Your task to perform on an android device: turn off notifications settings in the gmail app Image 0: 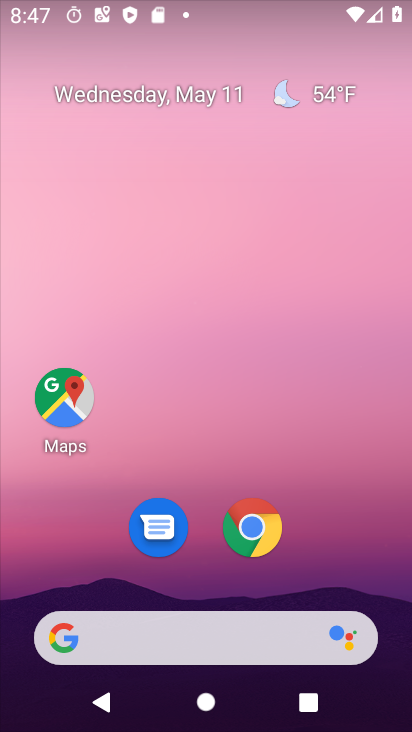
Step 0: drag from (207, 574) to (215, 2)
Your task to perform on an android device: turn off notifications settings in the gmail app Image 1: 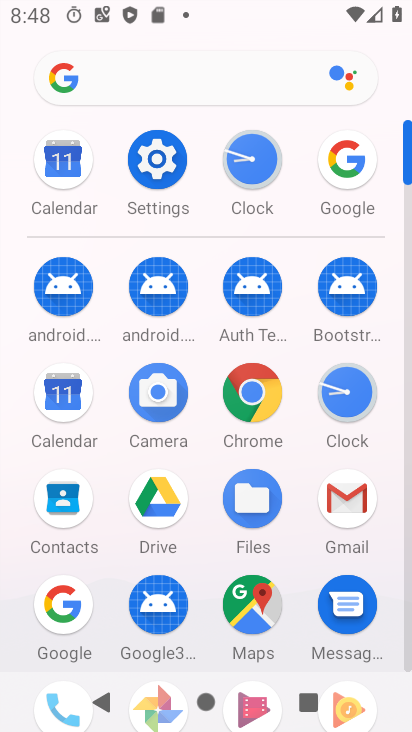
Step 1: click (349, 499)
Your task to perform on an android device: turn off notifications settings in the gmail app Image 2: 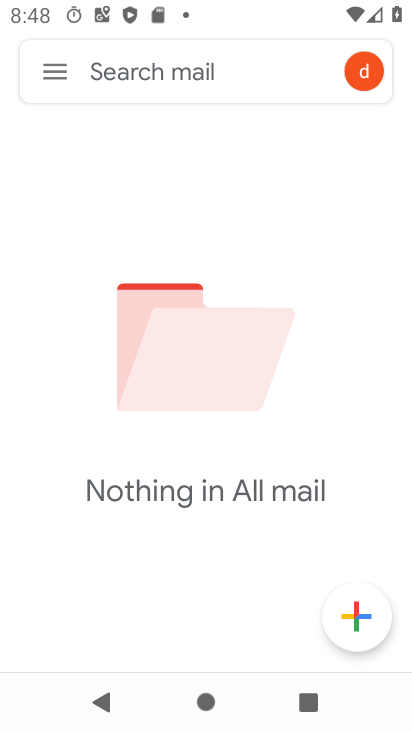
Step 2: click (53, 69)
Your task to perform on an android device: turn off notifications settings in the gmail app Image 3: 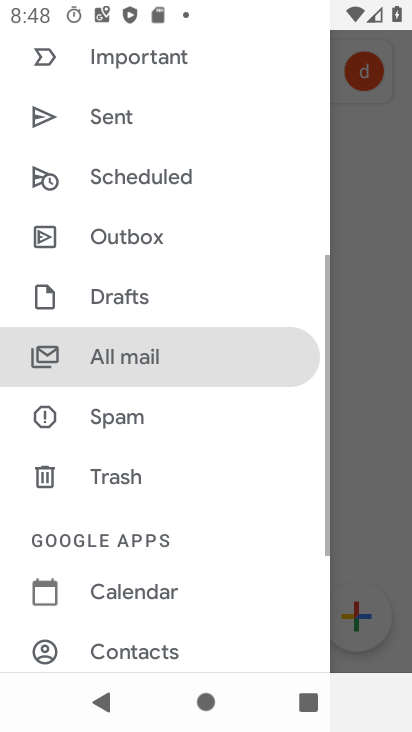
Step 3: drag from (227, 550) to (189, 118)
Your task to perform on an android device: turn off notifications settings in the gmail app Image 4: 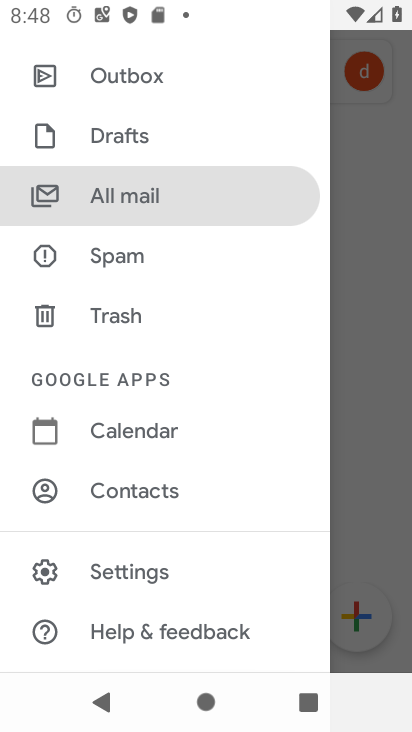
Step 4: click (125, 570)
Your task to perform on an android device: turn off notifications settings in the gmail app Image 5: 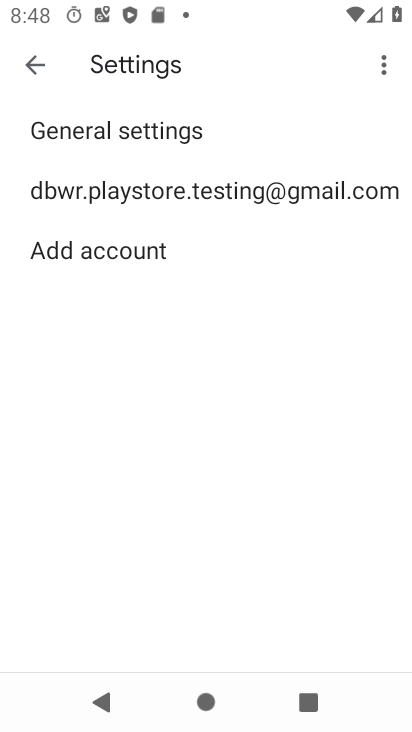
Step 5: click (176, 189)
Your task to perform on an android device: turn off notifications settings in the gmail app Image 6: 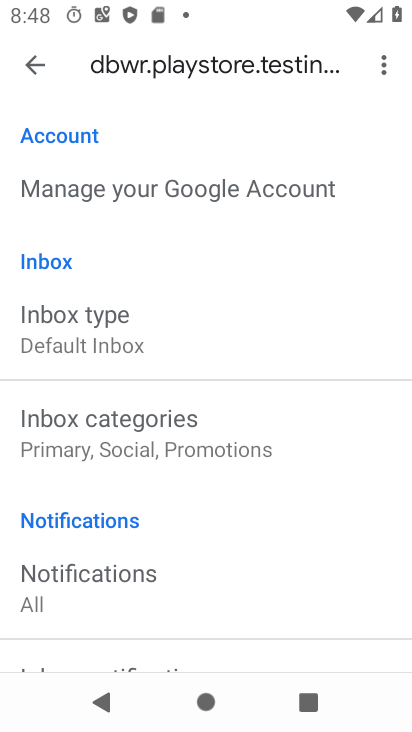
Step 6: click (97, 599)
Your task to perform on an android device: turn off notifications settings in the gmail app Image 7: 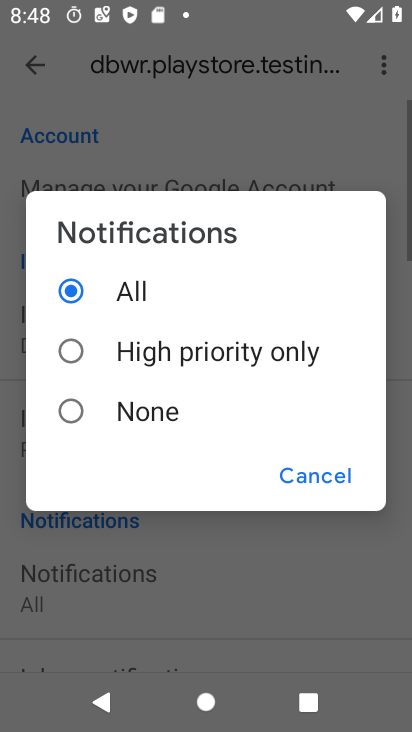
Step 7: click (65, 413)
Your task to perform on an android device: turn off notifications settings in the gmail app Image 8: 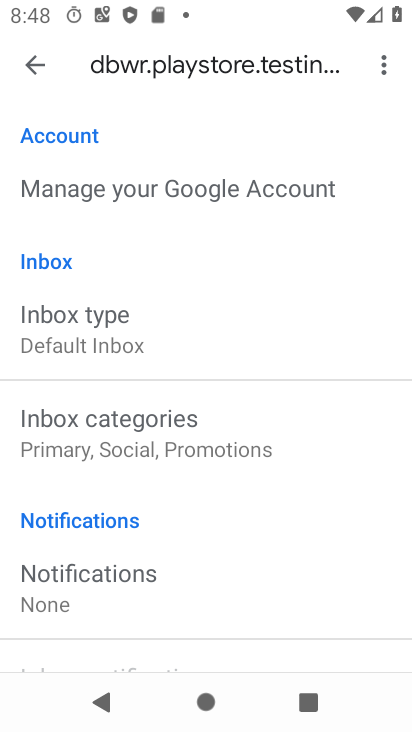
Step 8: task complete